Your task to perform on an android device: move an email to a new category in the gmail app Image 0: 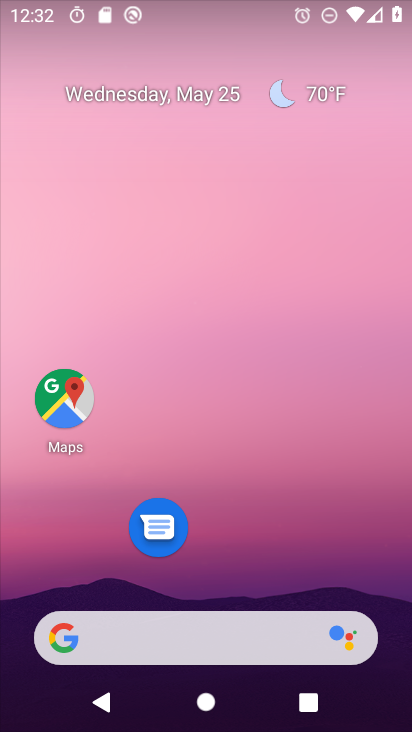
Step 0: drag from (226, 568) to (282, 104)
Your task to perform on an android device: move an email to a new category in the gmail app Image 1: 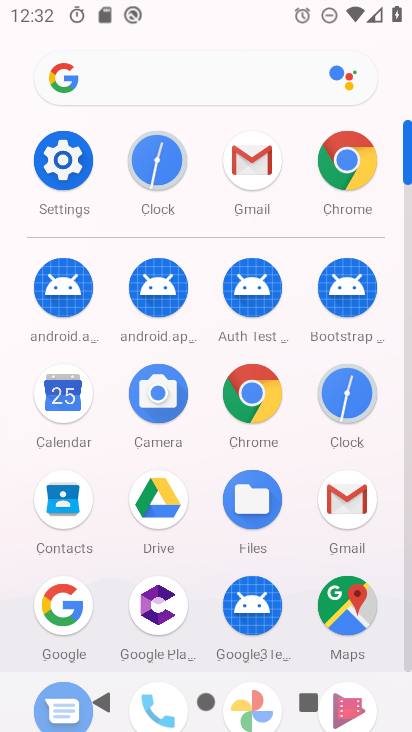
Step 1: click (346, 508)
Your task to perform on an android device: move an email to a new category in the gmail app Image 2: 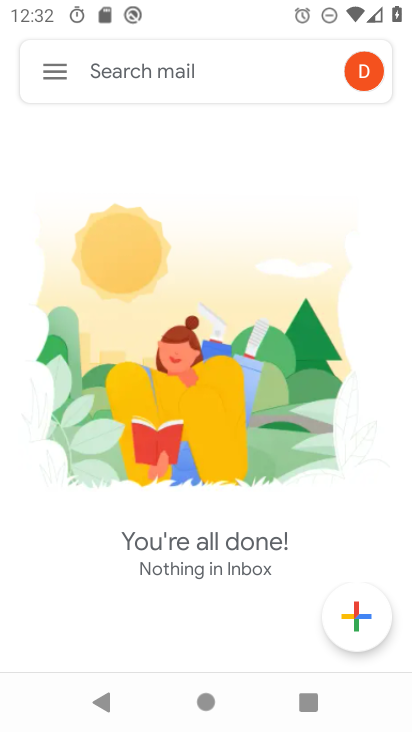
Step 2: click (49, 70)
Your task to perform on an android device: move an email to a new category in the gmail app Image 3: 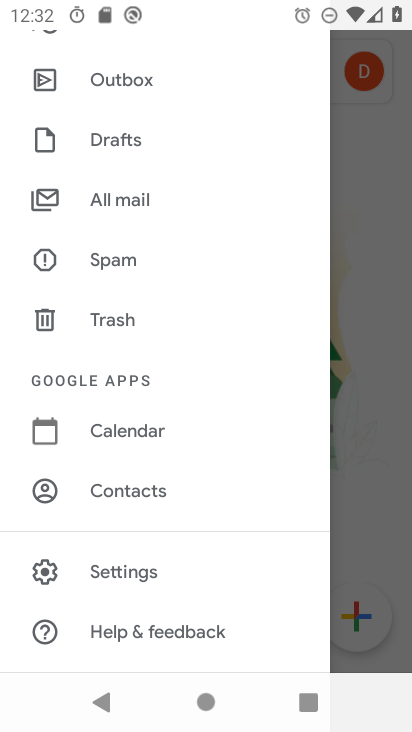
Step 3: click (114, 213)
Your task to perform on an android device: move an email to a new category in the gmail app Image 4: 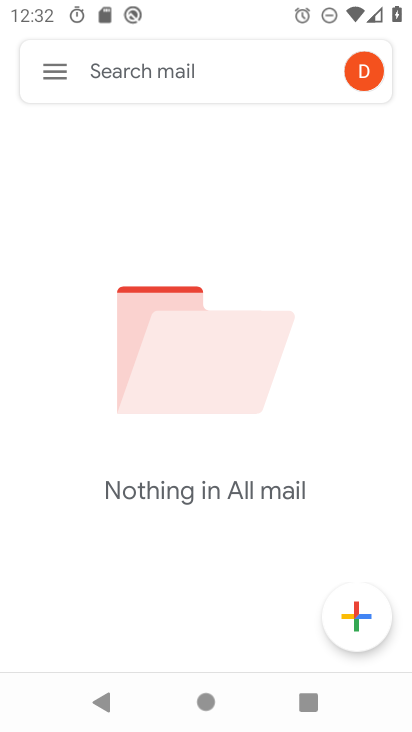
Step 4: task complete